Your task to perform on an android device: turn on location history Image 0: 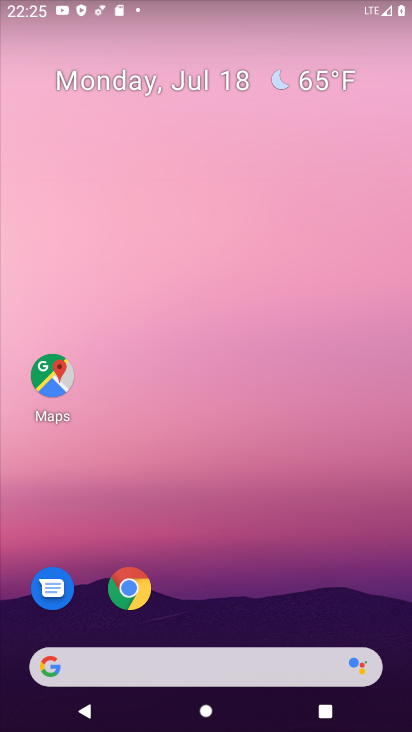
Step 0: press home button
Your task to perform on an android device: turn on location history Image 1: 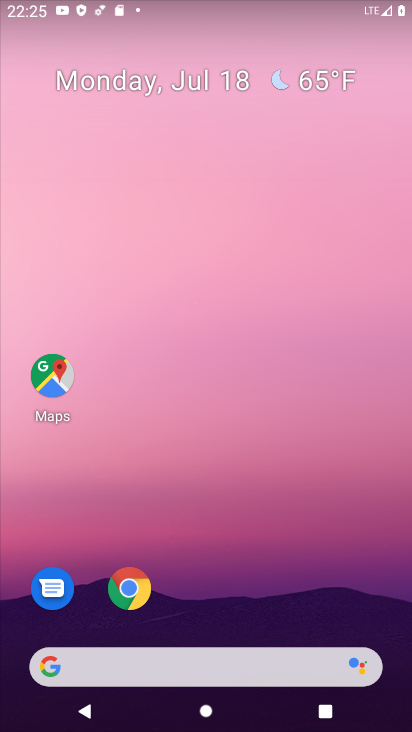
Step 1: drag from (266, 584) to (406, 173)
Your task to perform on an android device: turn on location history Image 2: 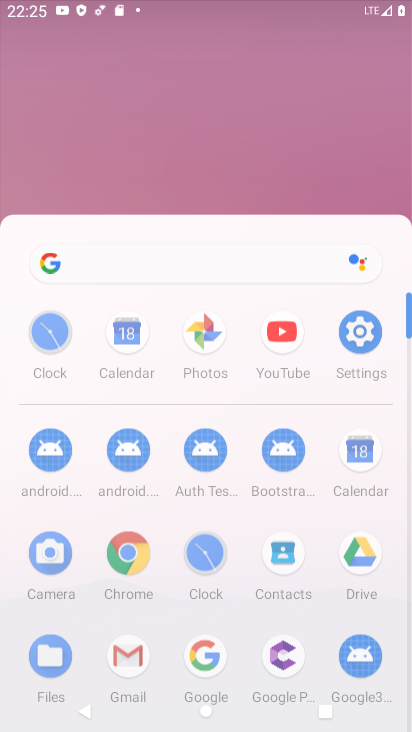
Step 2: click (354, 169)
Your task to perform on an android device: turn on location history Image 3: 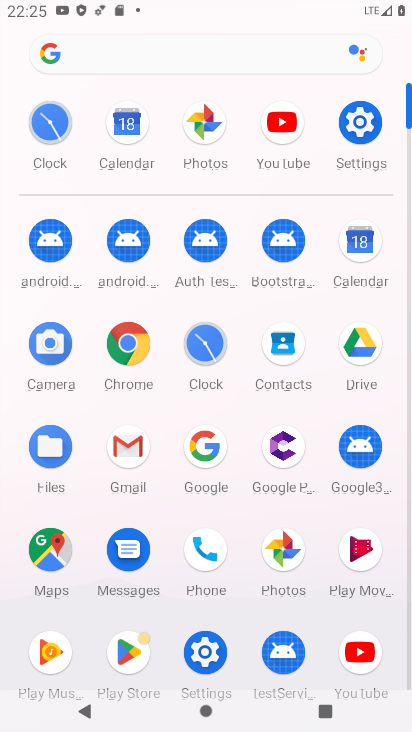
Step 3: click (352, 136)
Your task to perform on an android device: turn on location history Image 4: 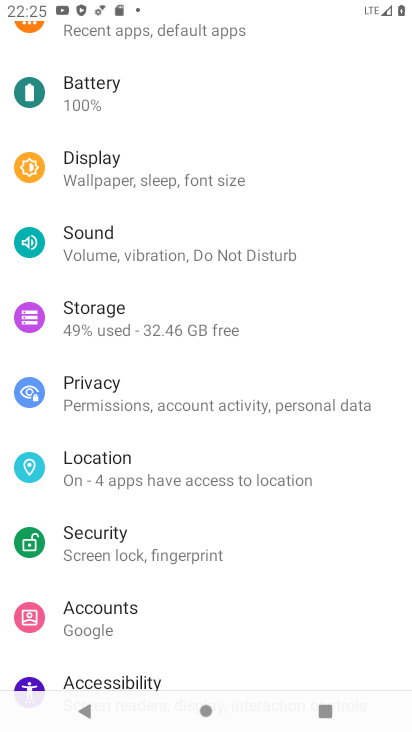
Step 4: click (111, 463)
Your task to perform on an android device: turn on location history Image 5: 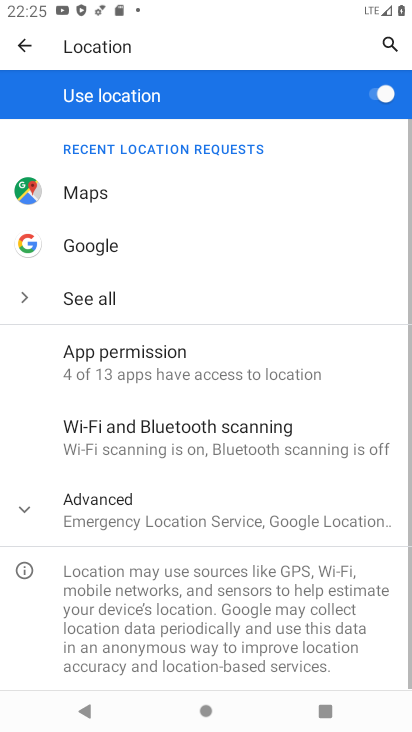
Step 5: click (24, 506)
Your task to perform on an android device: turn on location history Image 6: 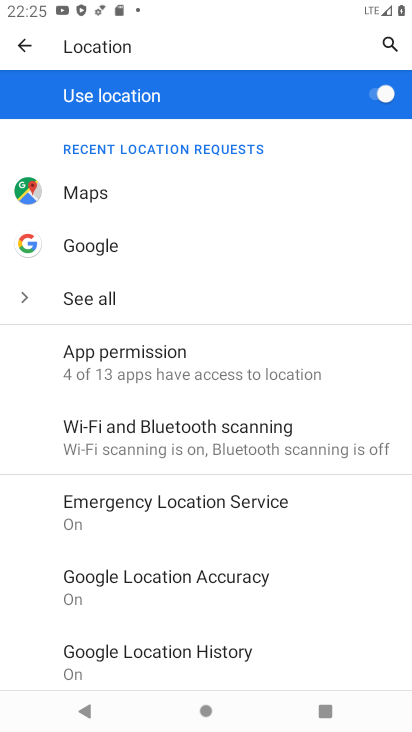
Step 6: task complete